Your task to perform on an android device: check out phone information Image 0: 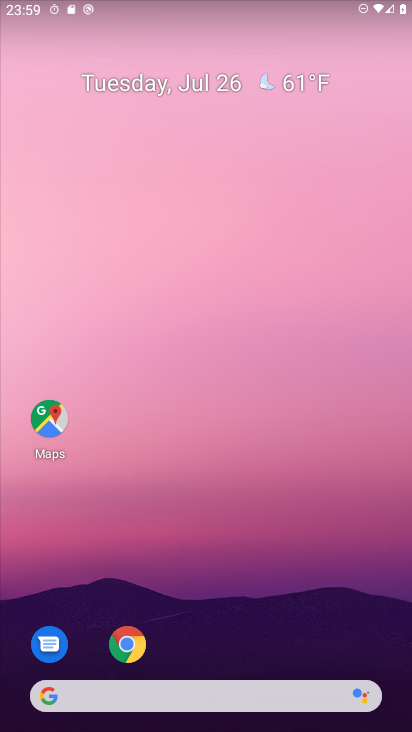
Step 0: drag from (267, 669) to (254, 14)
Your task to perform on an android device: check out phone information Image 1: 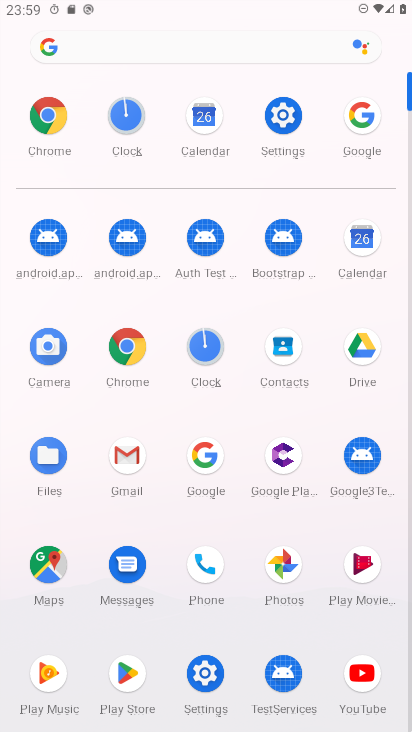
Step 1: click (280, 127)
Your task to perform on an android device: check out phone information Image 2: 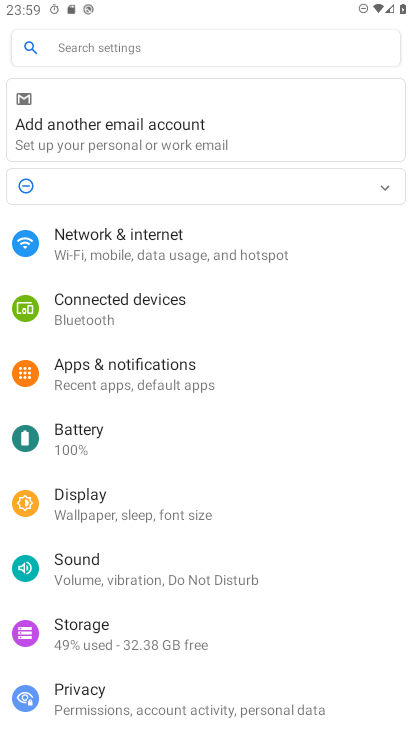
Step 2: drag from (256, 572) to (204, 153)
Your task to perform on an android device: check out phone information Image 3: 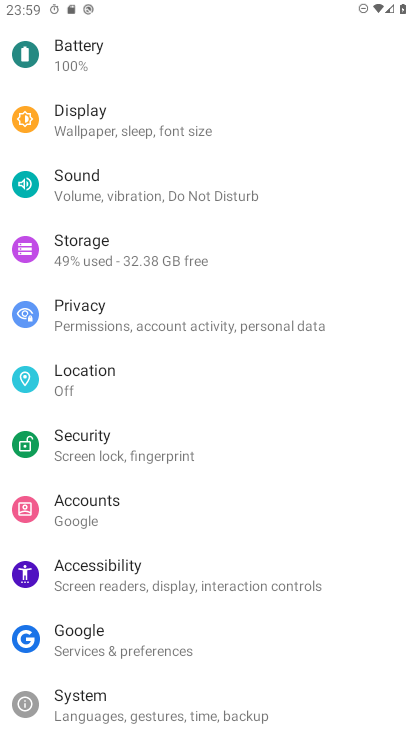
Step 3: drag from (235, 537) to (207, 157)
Your task to perform on an android device: check out phone information Image 4: 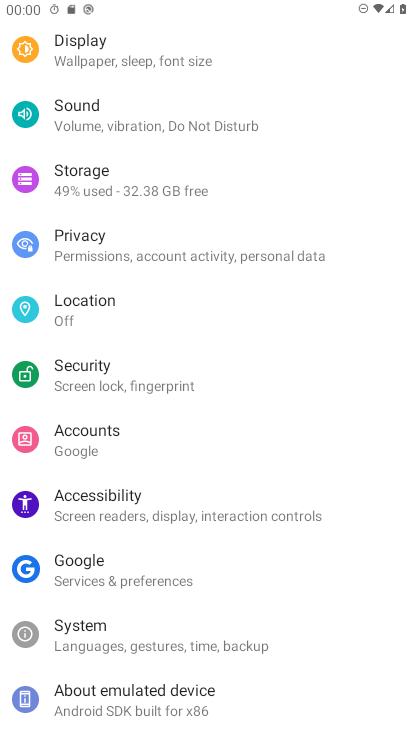
Step 4: click (165, 693)
Your task to perform on an android device: check out phone information Image 5: 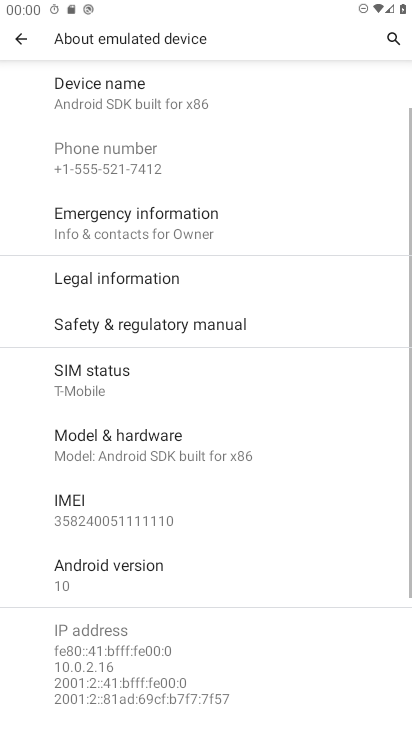
Step 5: task complete